Your task to perform on an android device: turn on notifications settings in the gmail app Image 0: 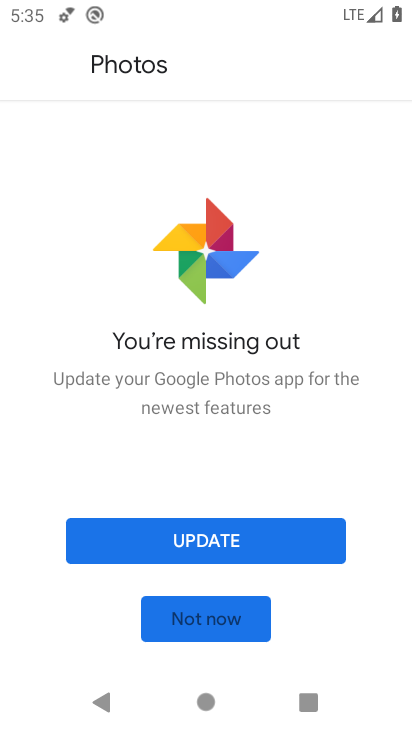
Step 0: press back button
Your task to perform on an android device: turn on notifications settings in the gmail app Image 1: 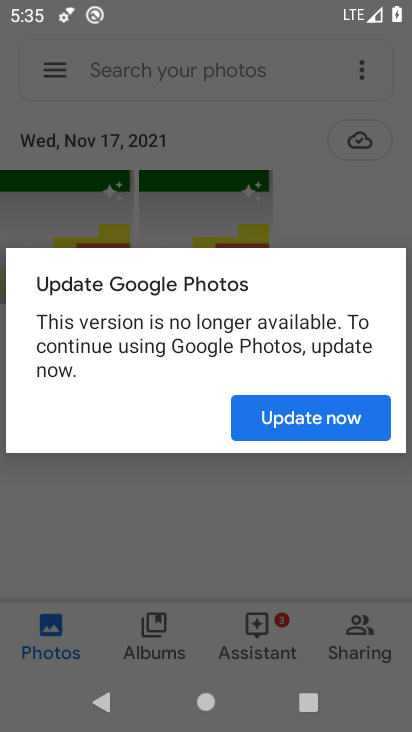
Step 1: press home button
Your task to perform on an android device: turn on notifications settings in the gmail app Image 2: 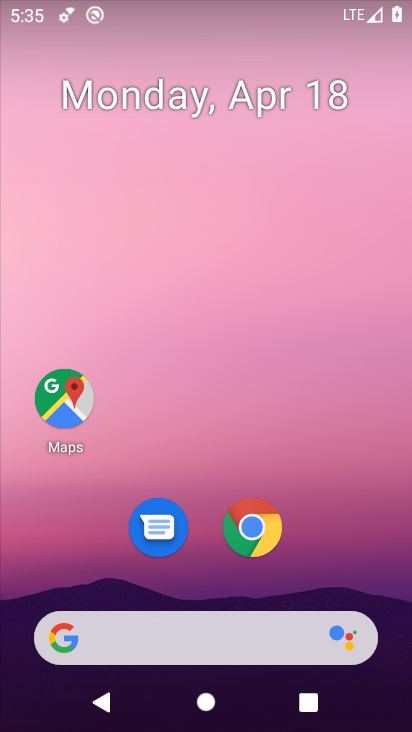
Step 2: drag from (224, 614) to (236, 160)
Your task to perform on an android device: turn on notifications settings in the gmail app Image 3: 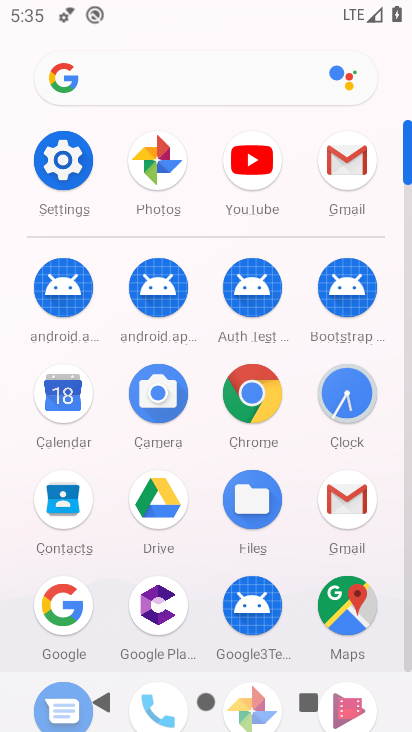
Step 3: click (350, 173)
Your task to perform on an android device: turn on notifications settings in the gmail app Image 4: 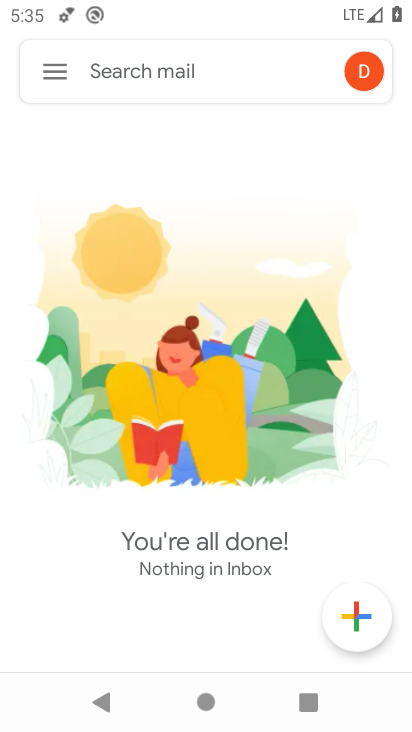
Step 4: click (61, 70)
Your task to perform on an android device: turn on notifications settings in the gmail app Image 5: 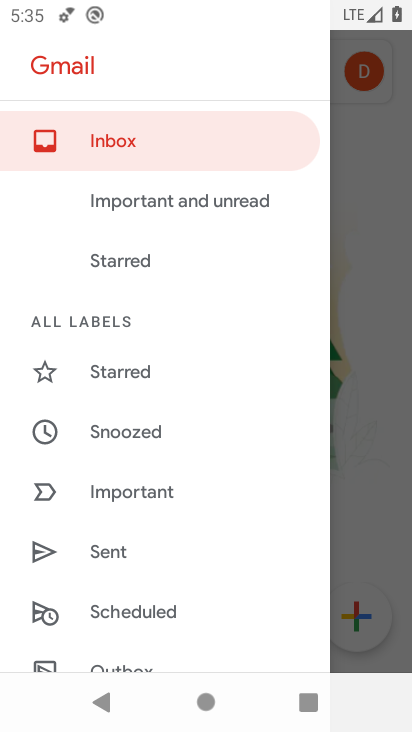
Step 5: drag from (134, 617) to (162, 272)
Your task to perform on an android device: turn on notifications settings in the gmail app Image 6: 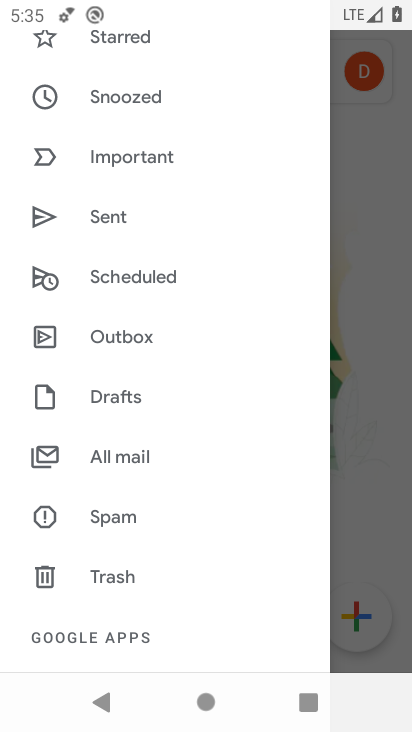
Step 6: drag from (131, 636) to (180, 297)
Your task to perform on an android device: turn on notifications settings in the gmail app Image 7: 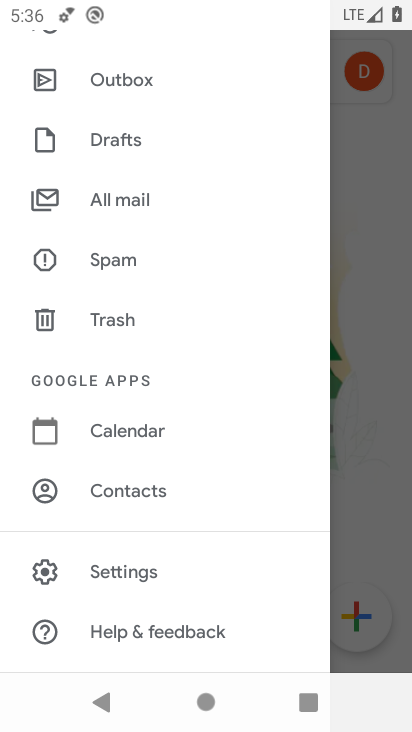
Step 7: click (137, 575)
Your task to perform on an android device: turn on notifications settings in the gmail app Image 8: 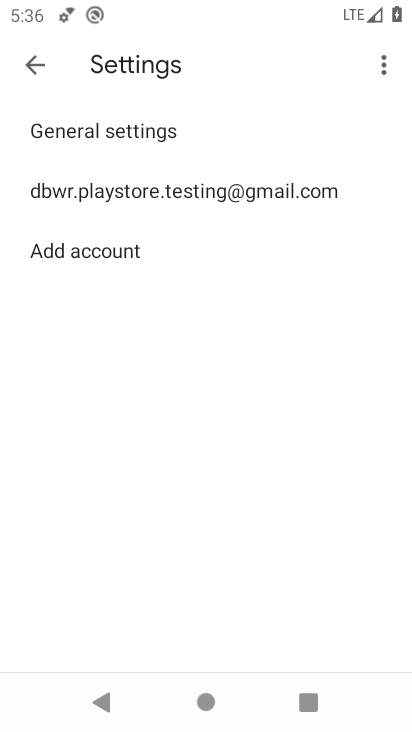
Step 8: click (104, 180)
Your task to perform on an android device: turn on notifications settings in the gmail app Image 9: 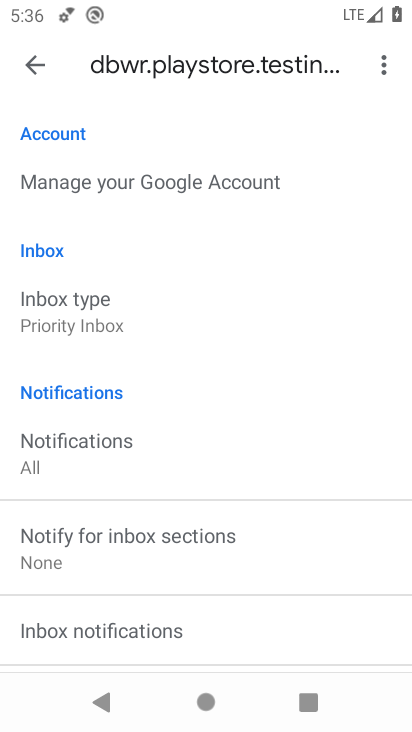
Step 9: click (48, 454)
Your task to perform on an android device: turn on notifications settings in the gmail app Image 10: 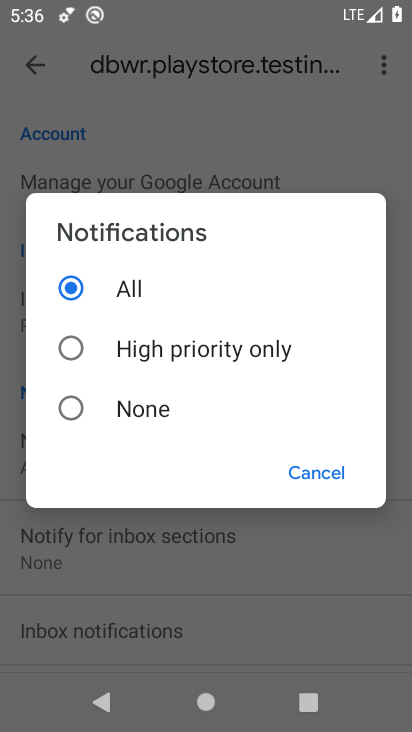
Step 10: click (311, 474)
Your task to perform on an android device: turn on notifications settings in the gmail app Image 11: 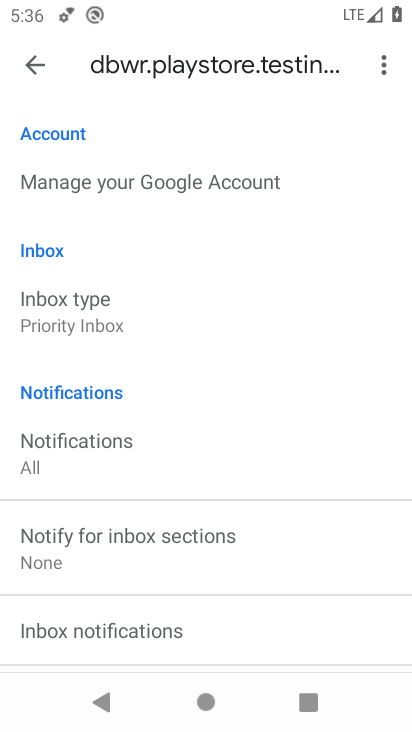
Step 11: click (40, 67)
Your task to perform on an android device: turn on notifications settings in the gmail app Image 12: 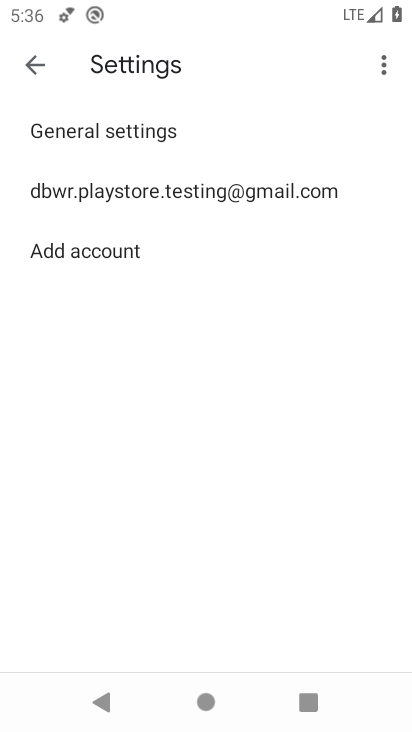
Step 12: click (75, 127)
Your task to perform on an android device: turn on notifications settings in the gmail app Image 13: 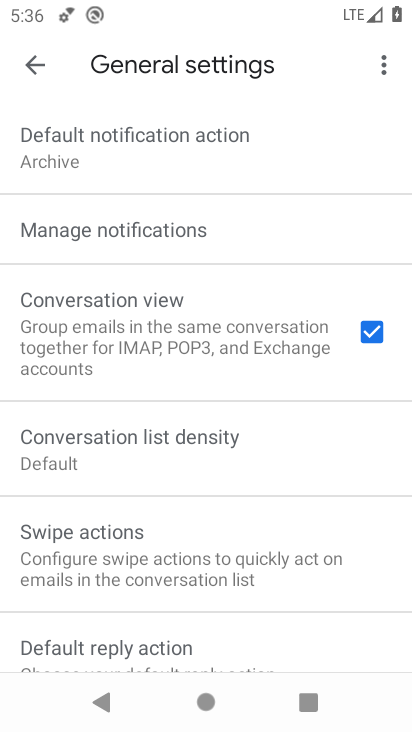
Step 13: click (110, 237)
Your task to perform on an android device: turn on notifications settings in the gmail app Image 14: 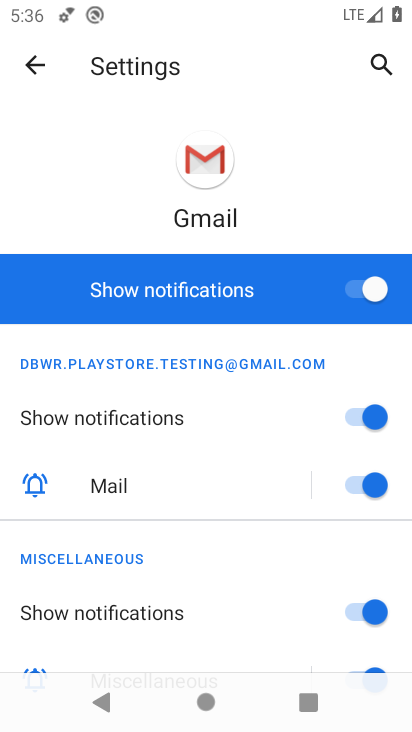
Step 14: task complete